Your task to perform on an android device: What's the weather? Image 0: 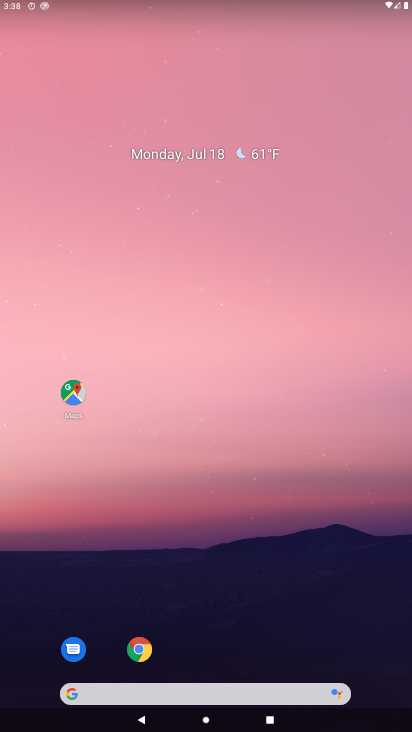
Step 0: click (112, 691)
Your task to perform on an android device: What's the weather? Image 1: 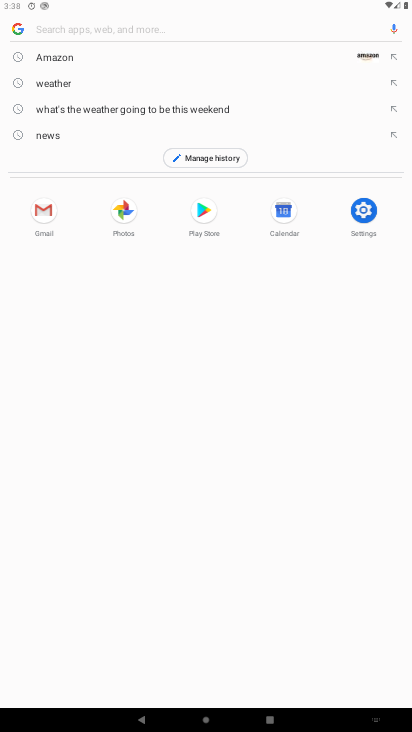
Step 1: type "What's the weather?"
Your task to perform on an android device: What's the weather? Image 2: 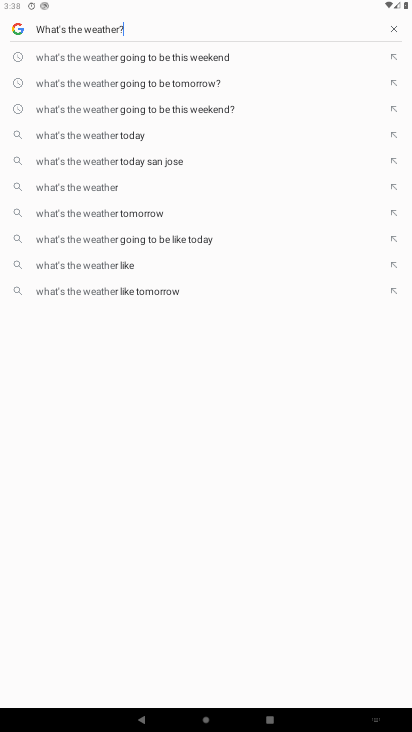
Step 2: type ""
Your task to perform on an android device: What's the weather? Image 3: 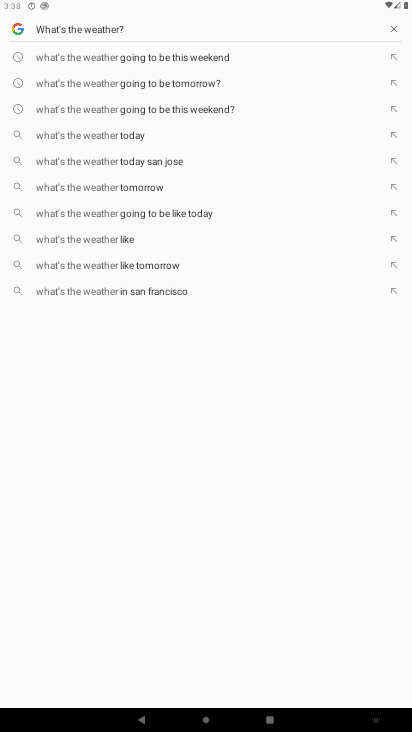
Step 3: type ""
Your task to perform on an android device: What's the weather? Image 4: 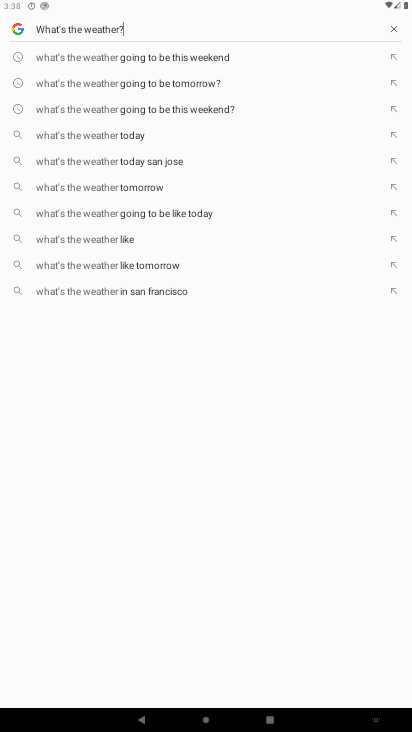
Step 4: type ""
Your task to perform on an android device: What's the weather? Image 5: 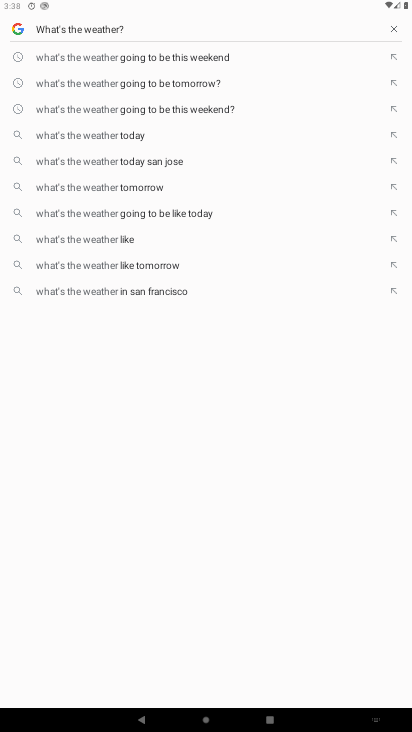
Step 5: task complete